Your task to perform on an android device: open app "Etsy: Buy & Sell Unique Items" Image 0: 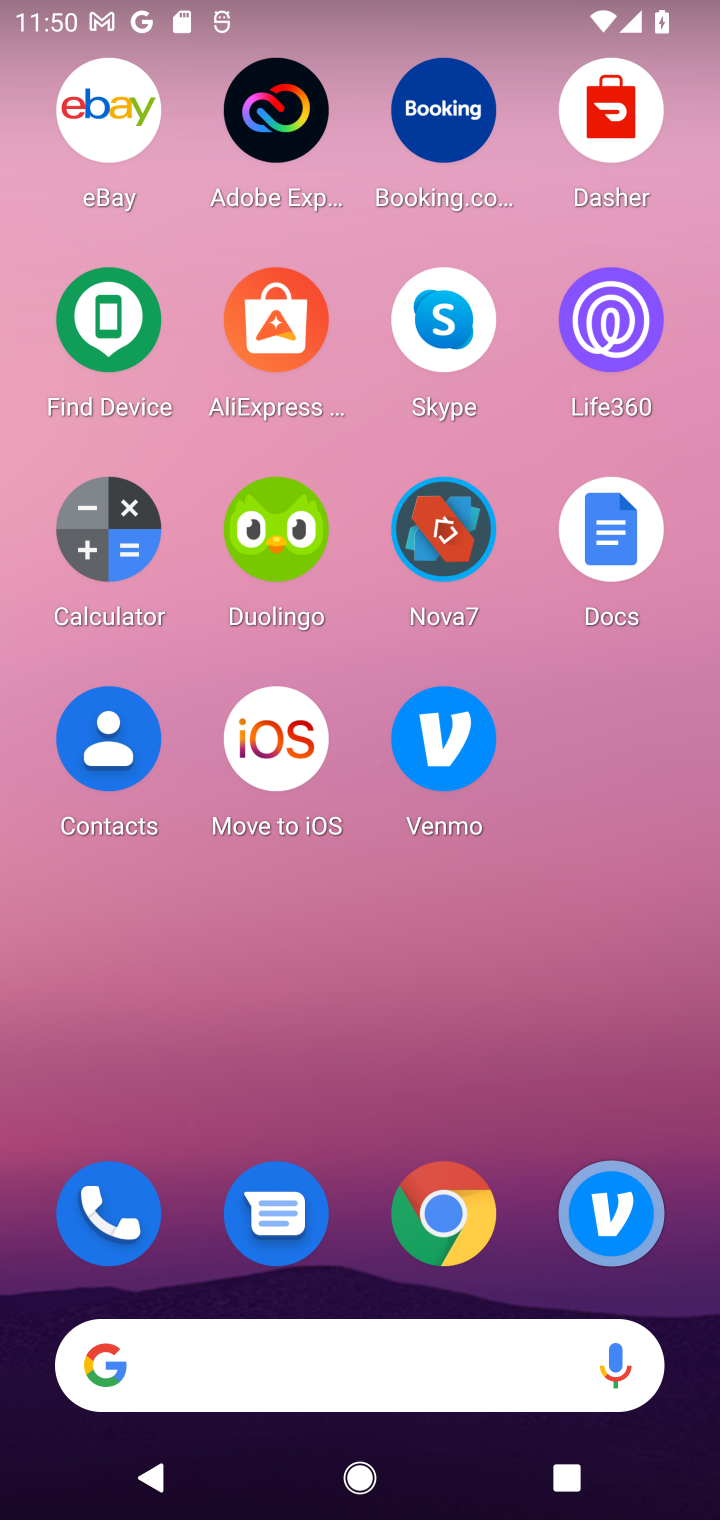
Step 0: drag from (352, 1303) to (410, 222)
Your task to perform on an android device: open app "Etsy: Buy & Sell Unique Items" Image 1: 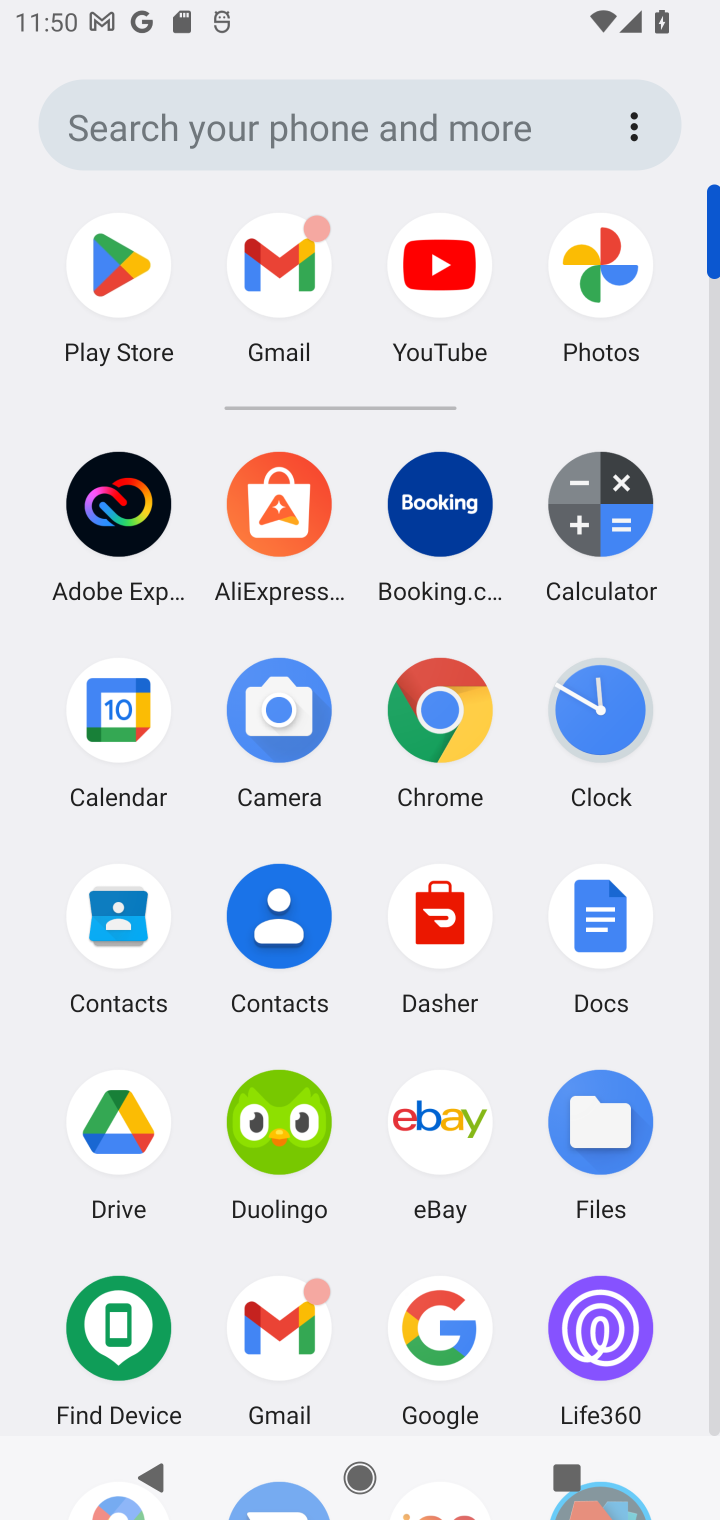
Step 1: click (113, 275)
Your task to perform on an android device: open app "Etsy: Buy & Sell Unique Items" Image 2: 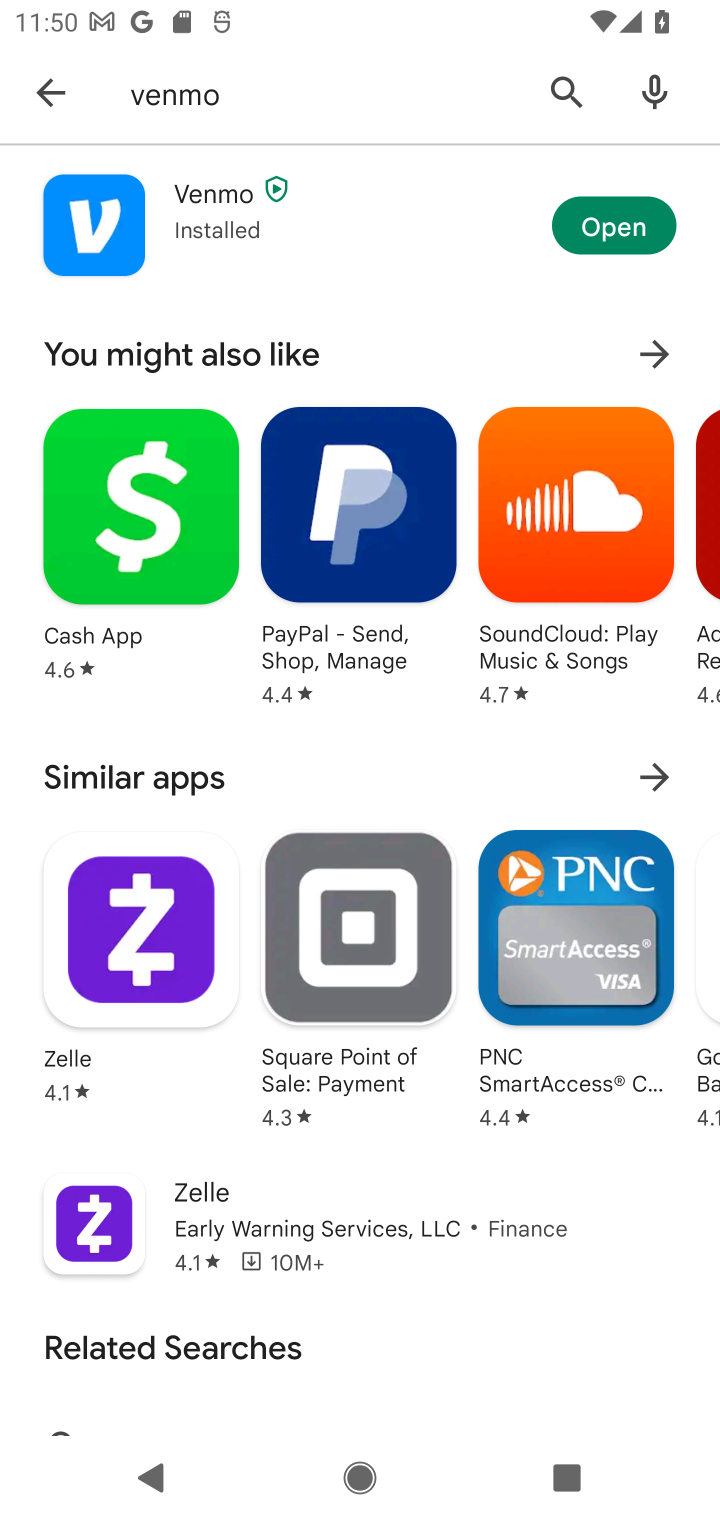
Step 2: press back button
Your task to perform on an android device: open app "Etsy: Buy & Sell Unique Items" Image 3: 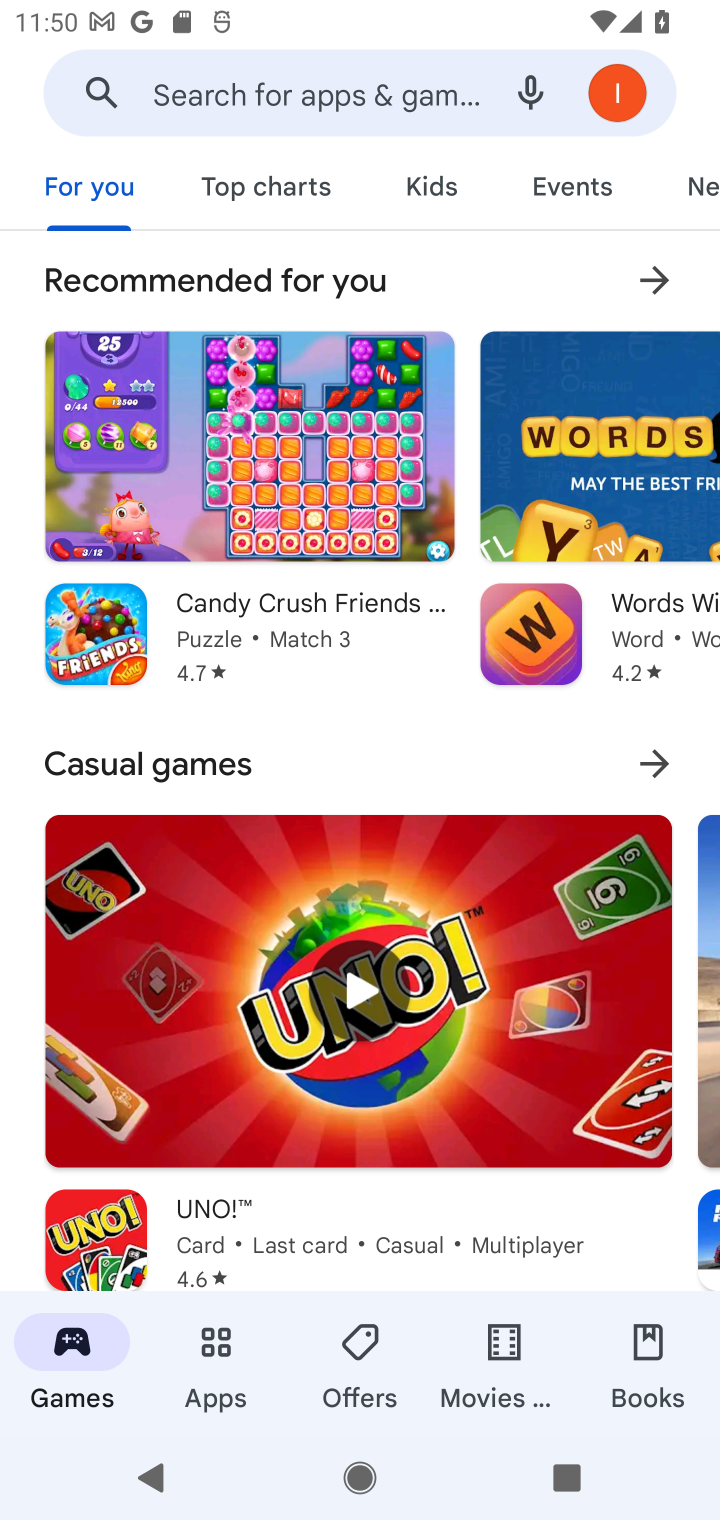
Step 3: click (428, 91)
Your task to perform on an android device: open app "Etsy: Buy & Sell Unique Items" Image 4: 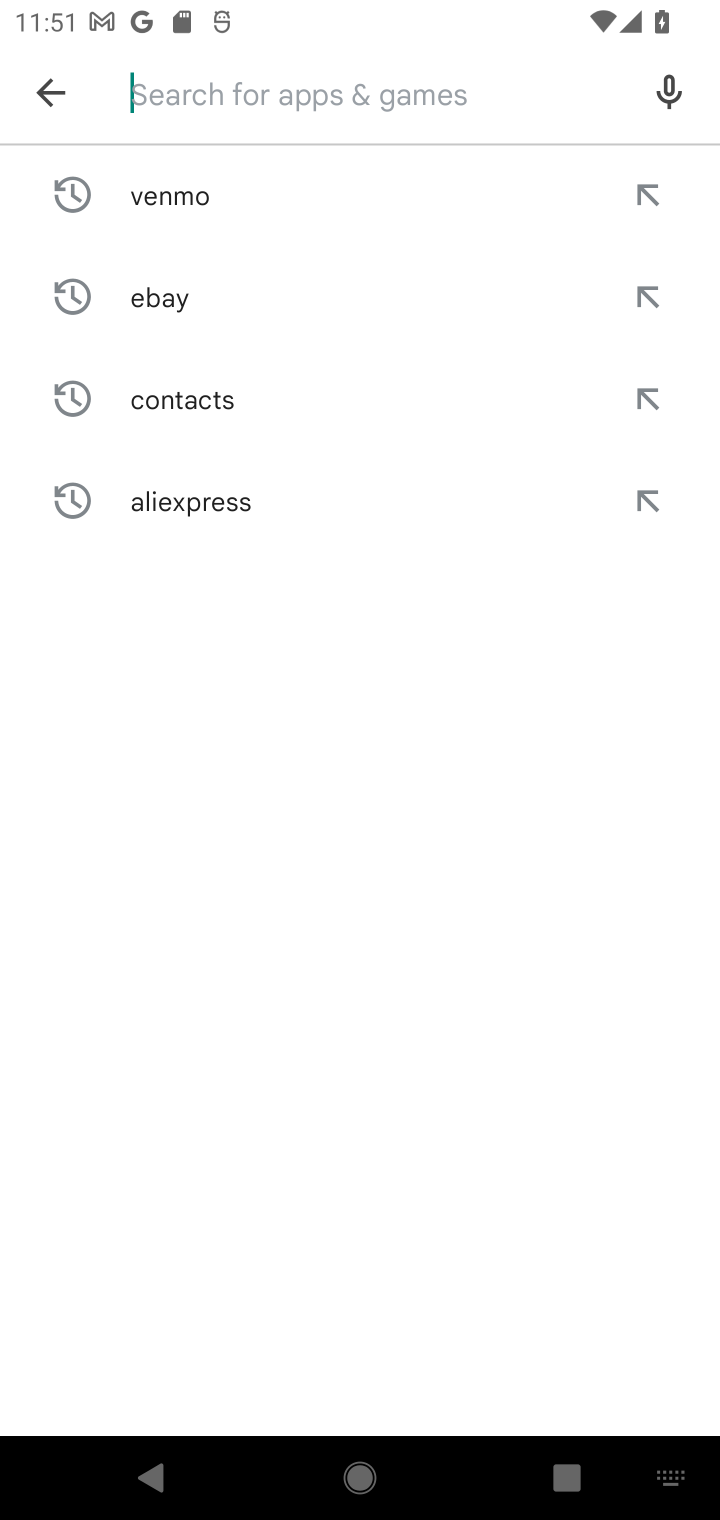
Step 4: click (267, 101)
Your task to perform on an android device: open app "Etsy: Buy & Sell Unique Items" Image 5: 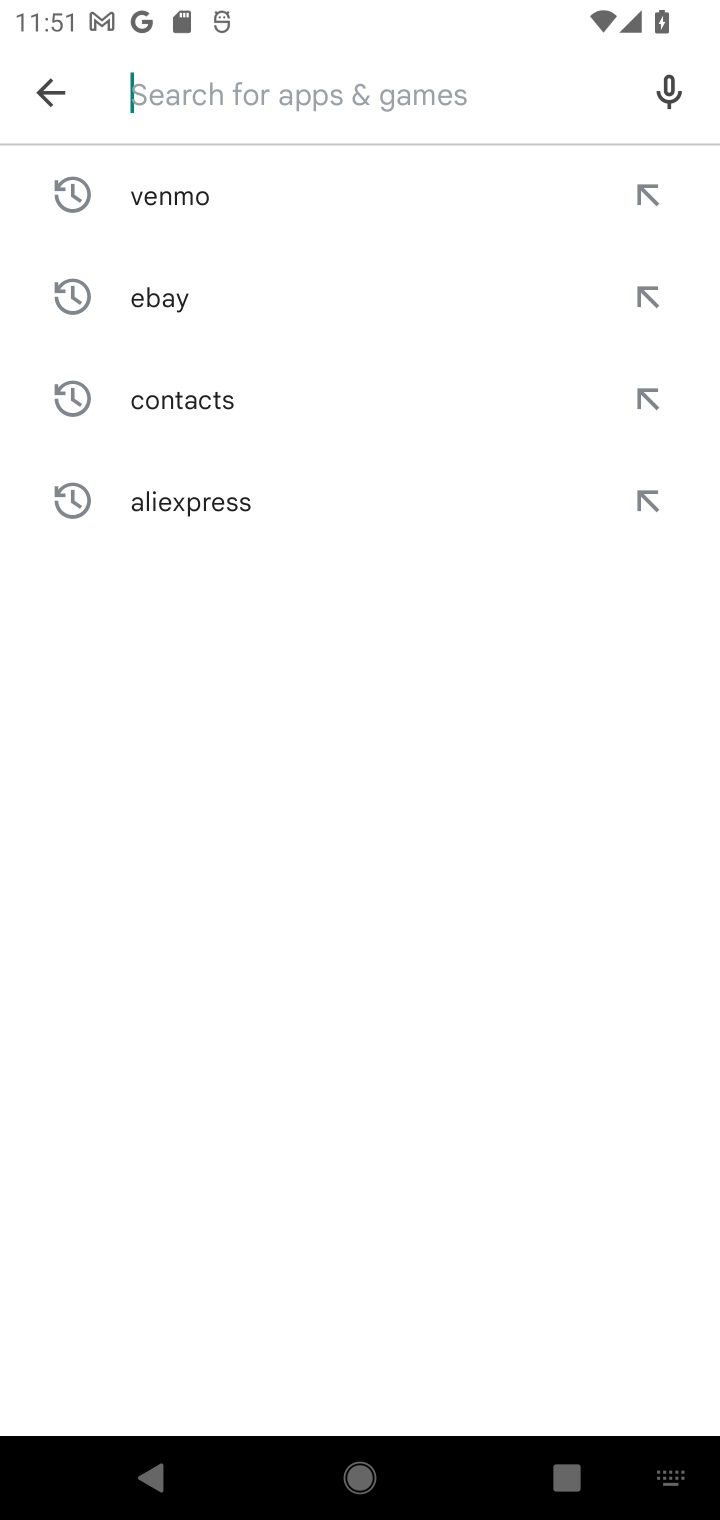
Step 5: type "Etsy: Buy & Sell Unique Items"
Your task to perform on an android device: open app "Etsy: Buy & Sell Unique Items" Image 6: 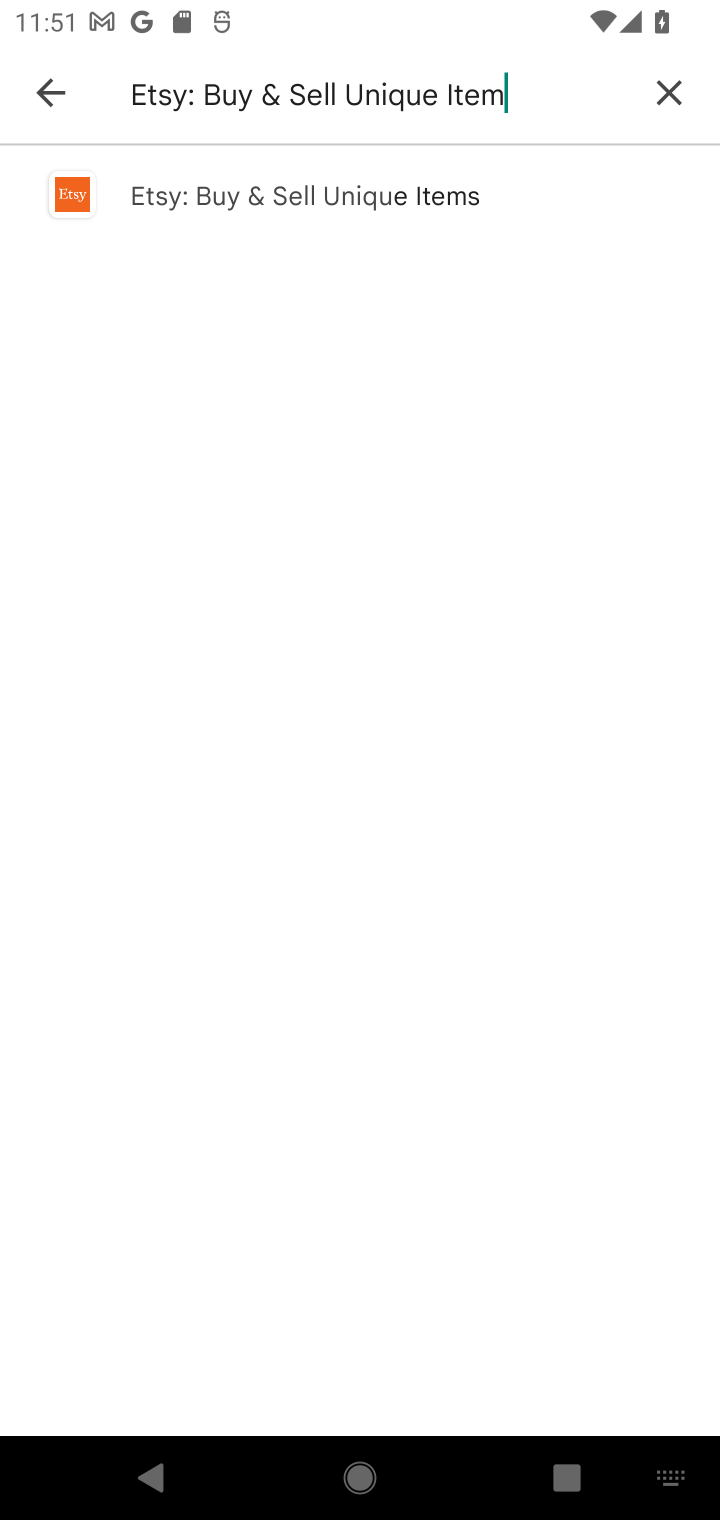
Step 6: type ""
Your task to perform on an android device: open app "Etsy: Buy & Sell Unique Items" Image 7: 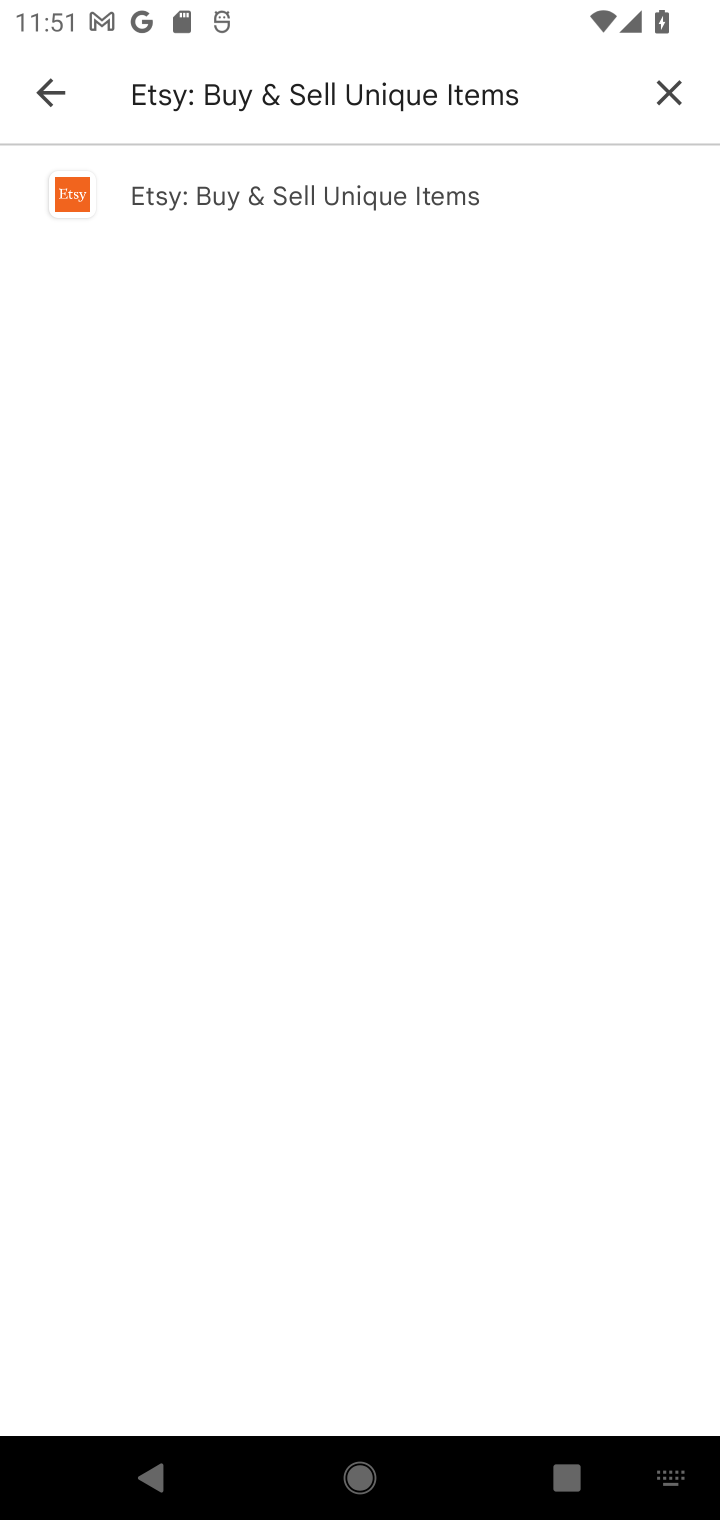
Step 7: click (277, 194)
Your task to perform on an android device: open app "Etsy: Buy & Sell Unique Items" Image 8: 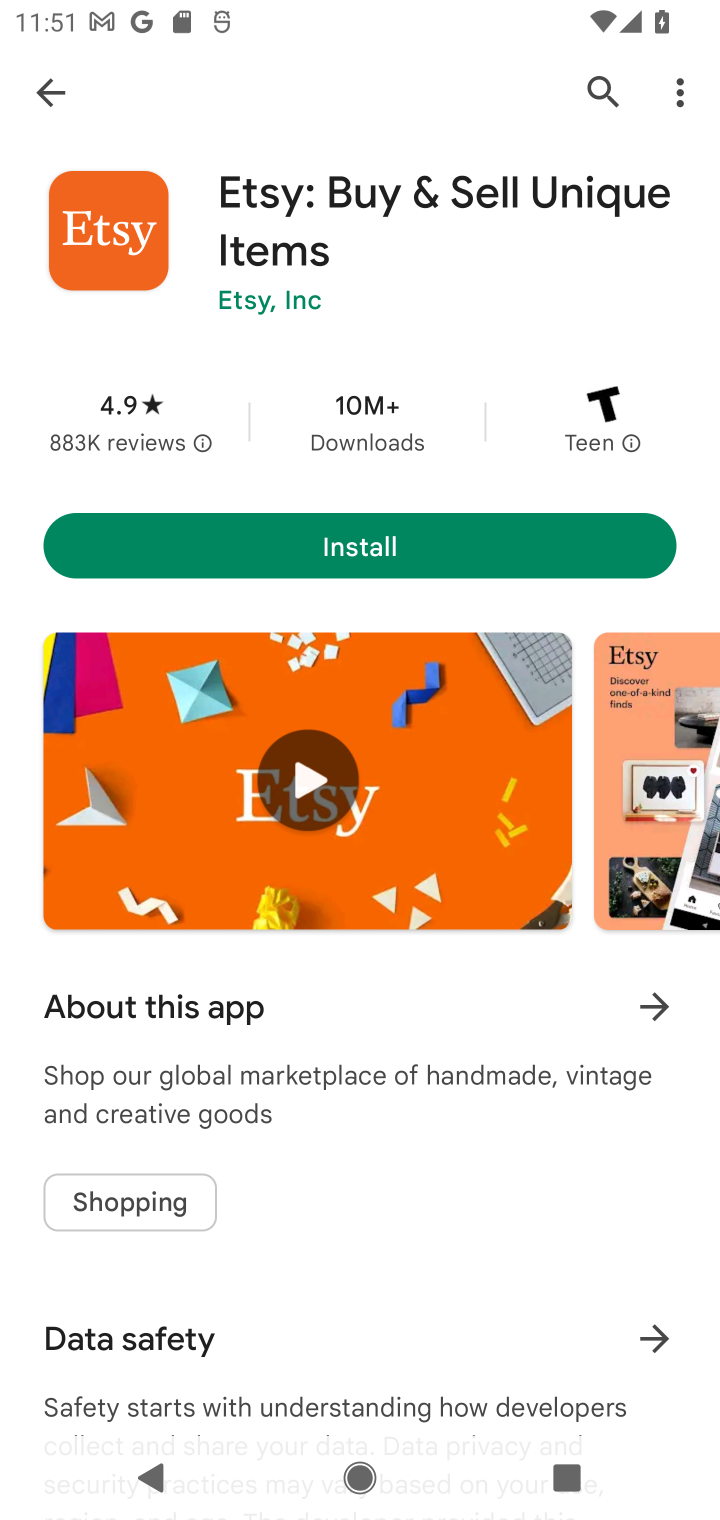
Step 8: task complete